Your task to perform on an android device: Open eBay Image 0: 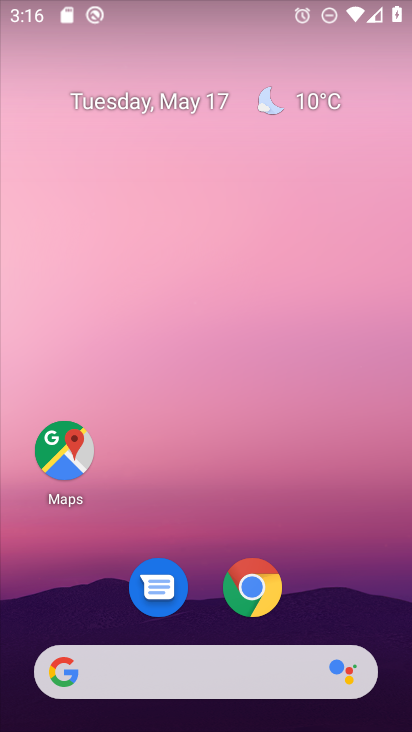
Step 0: drag from (350, 499) to (275, 27)
Your task to perform on an android device: Open eBay Image 1: 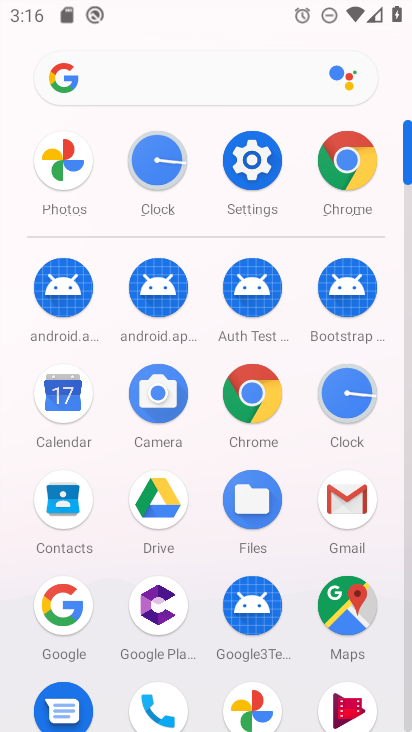
Step 1: click (252, 388)
Your task to perform on an android device: Open eBay Image 2: 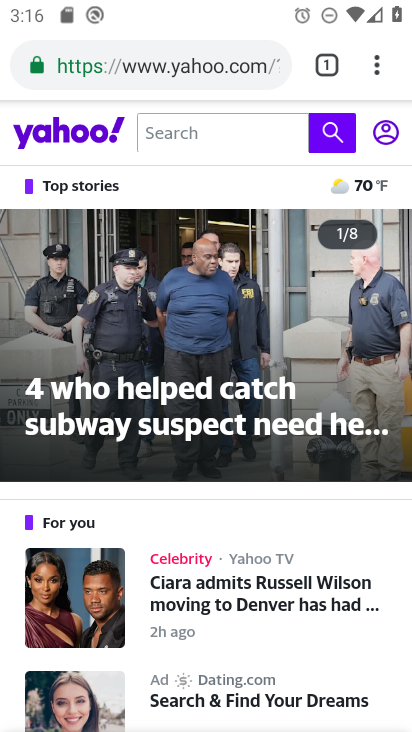
Step 2: click (186, 68)
Your task to perform on an android device: Open eBay Image 3: 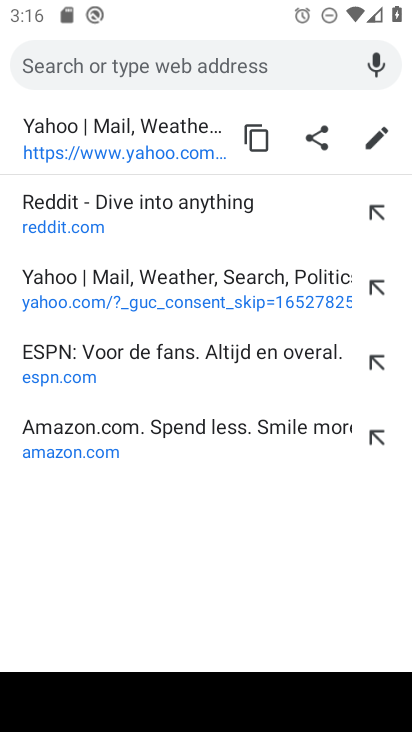
Step 3: type "eBay"
Your task to perform on an android device: Open eBay Image 4: 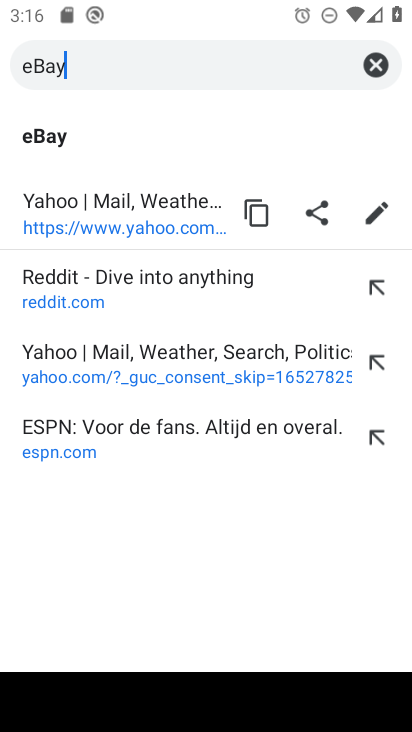
Step 4: type ""
Your task to perform on an android device: Open eBay Image 5: 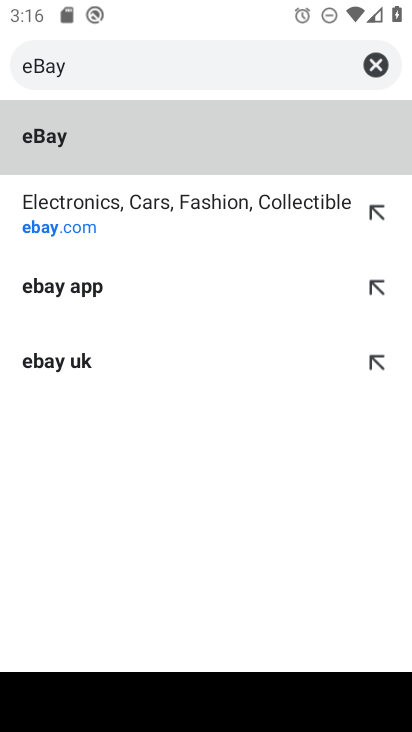
Step 5: click (114, 223)
Your task to perform on an android device: Open eBay Image 6: 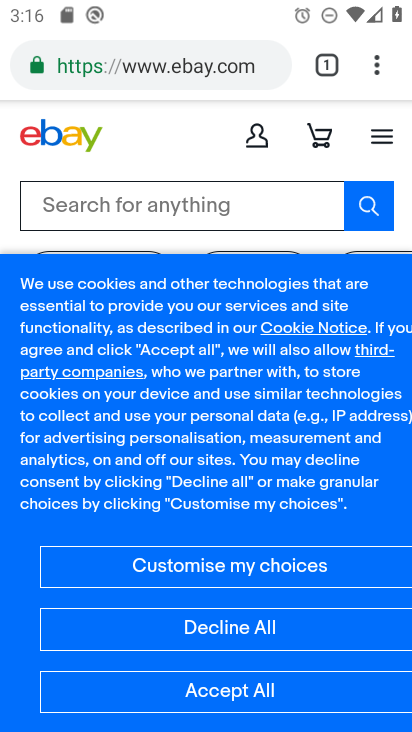
Step 6: task complete